Your task to perform on an android device: Open accessibility settings Image 0: 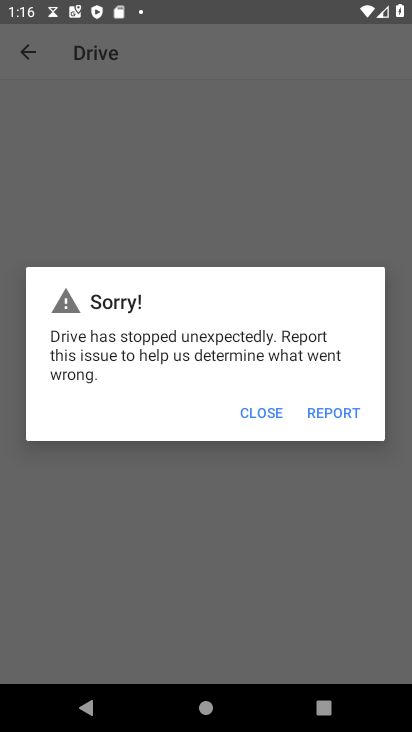
Step 0: press home button
Your task to perform on an android device: Open accessibility settings Image 1: 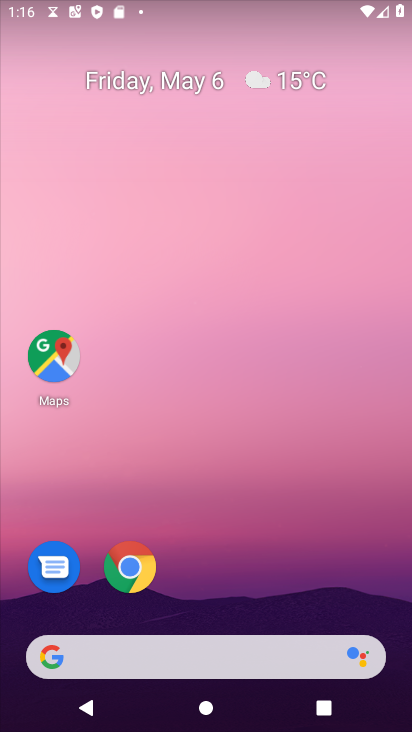
Step 1: drag from (346, 567) to (324, 69)
Your task to perform on an android device: Open accessibility settings Image 2: 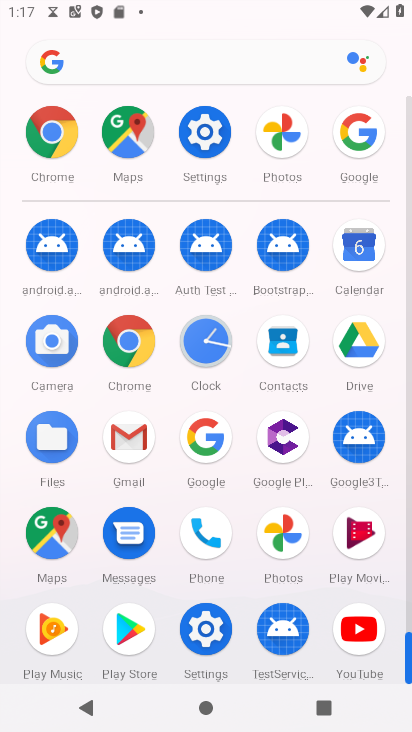
Step 2: click (200, 134)
Your task to perform on an android device: Open accessibility settings Image 3: 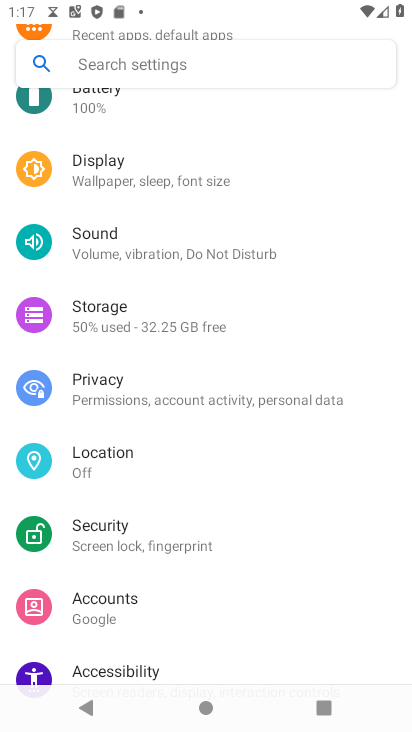
Step 3: drag from (231, 241) to (316, 572)
Your task to perform on an android device: Open accessibility settings Image 4: 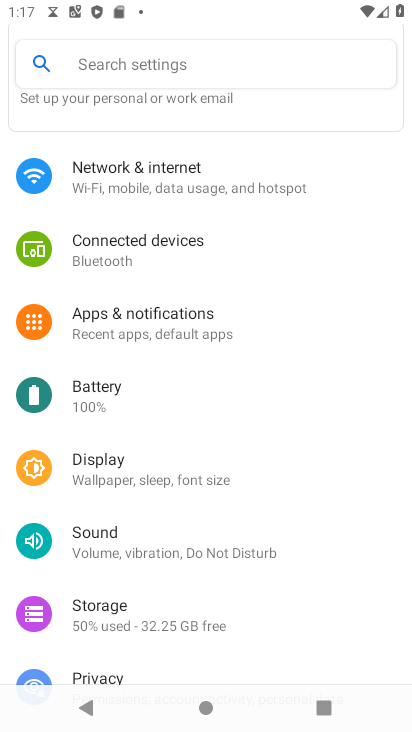
Step 4: drag from (262, 306) to (312, 581)
Your task to perform on an android device: Open accessibility settings Image 5: 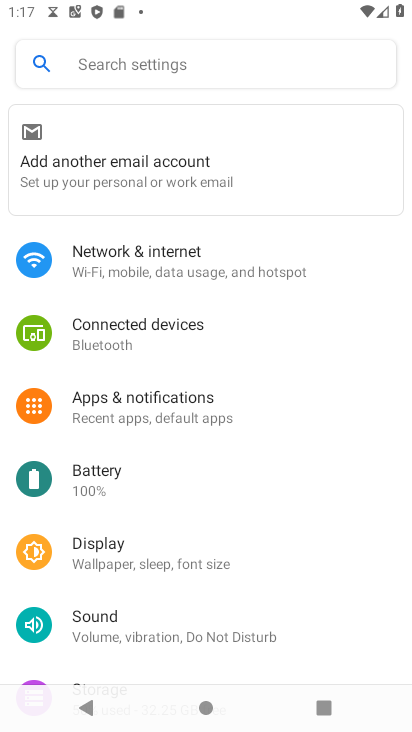
Step 5: drag from (312, 576) to (287, 269)
Your task to perform on an android device: Open accessibility settings Image 6: 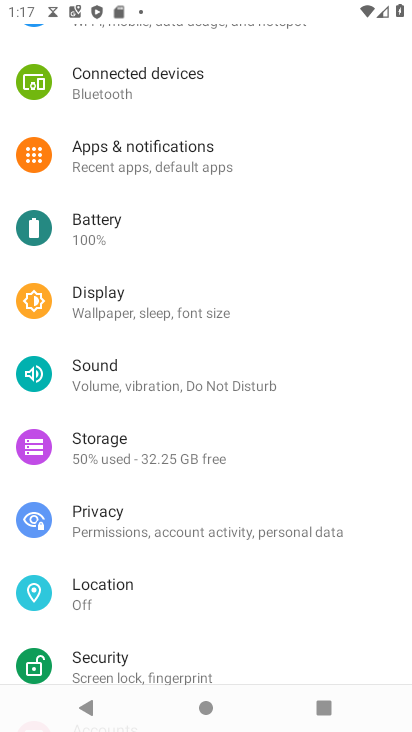
Step 6: drag from (194, 608) to (195, 260)
Your task to perform on an android device: Open accessibility settings Image 7: 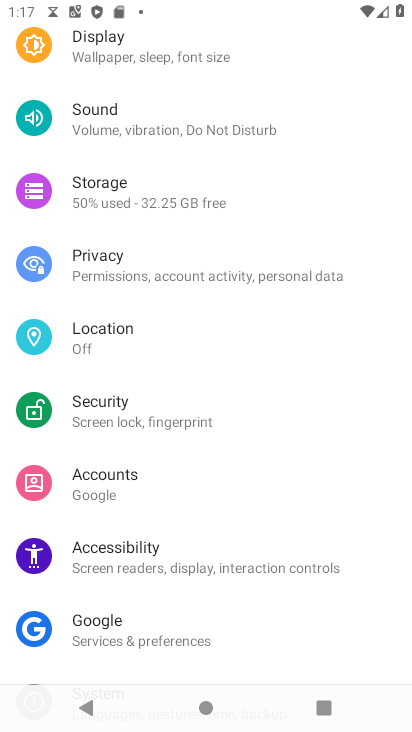
Step 7: drag from (211, 589) to (193, 242)
Your task to perform on an android device: Open accessibility settings Image 8: 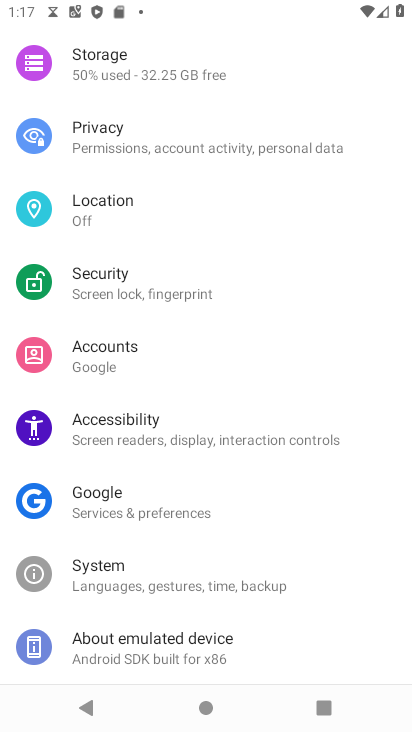
Step 8: click (169, 419)
Your task to perform on an android device: Open accessibility settings Image 9: 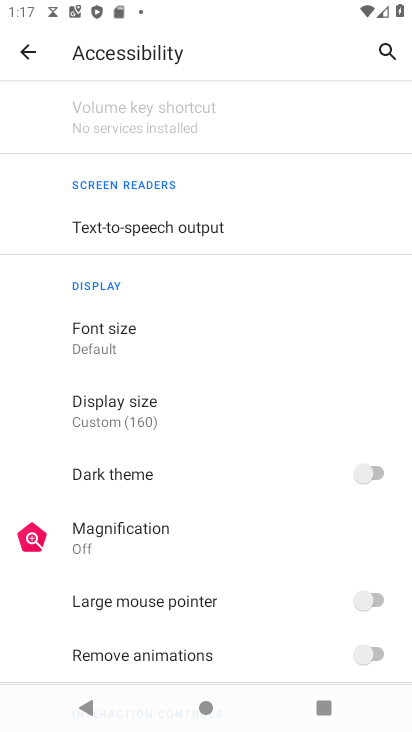
Step 9: task complete